Your task to perform on an android device: Open sound settings Image 0: 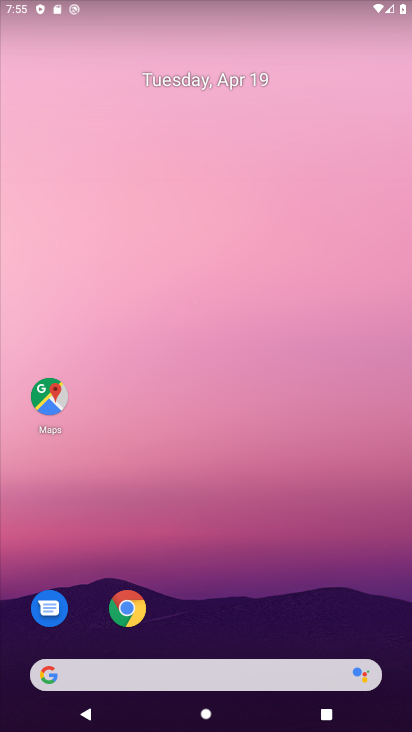
Step 0: drag from (240, 623) to (226, 33)
Your task to perform on an android device: Open sound settings Image 1: 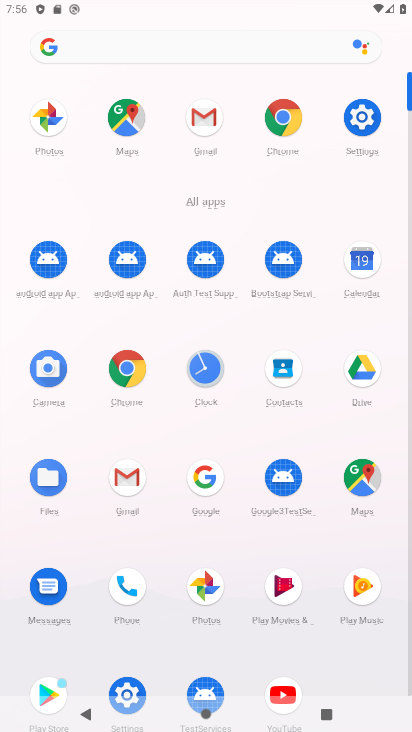
Step 1: click (364, 117)
Your task to perform on an android device: Open sound settings Image 2: 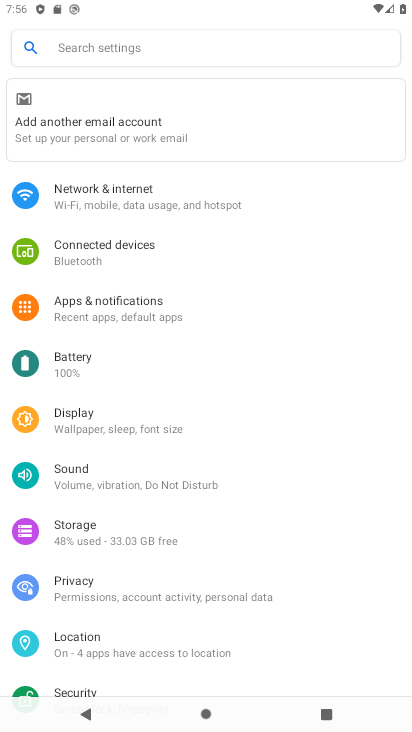
Step 2: click (104, 483)
Your task to perform on an android device: Open sound settings Image 3: 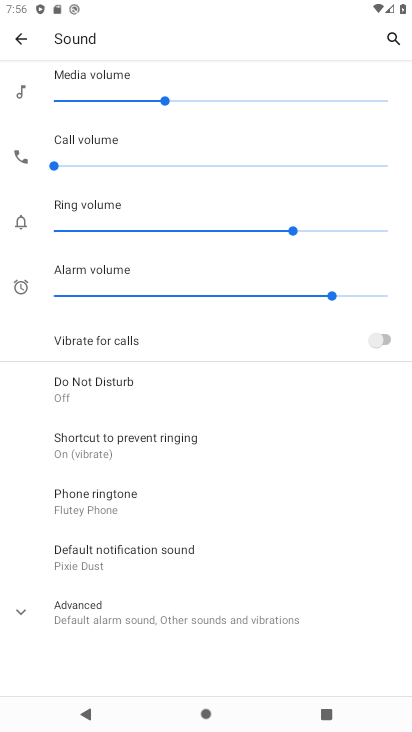
Step 3: task complete